Your task to perform on an android device: turn smart compose on in the gmail app Image 0: 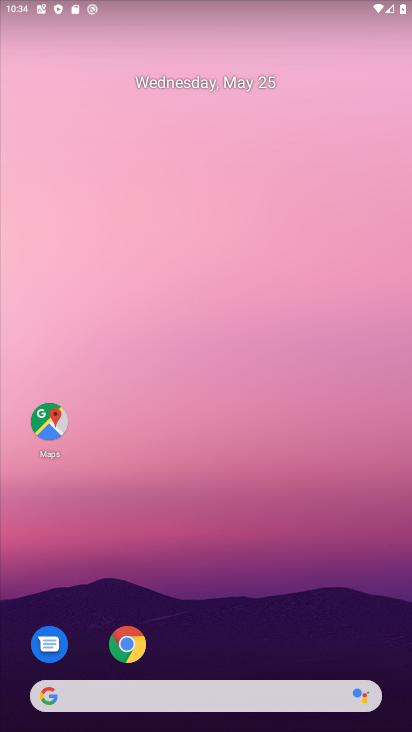
Step 0: drag from (218, 559) to (112, 28)
Your task to perform on an android device: turn smart compose on in the gmail app Image 1: 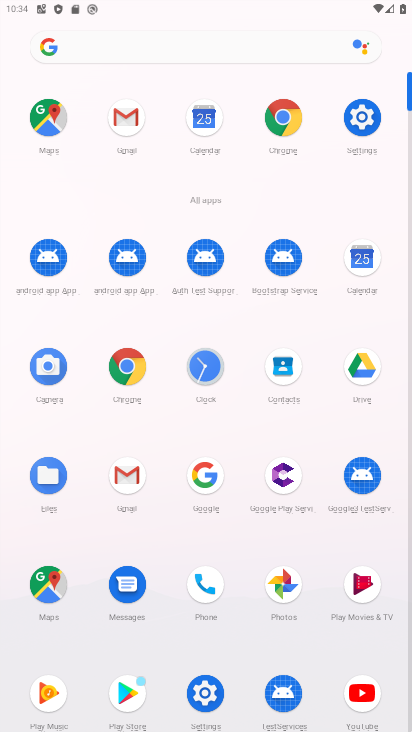
Step 1: click (129, 120)
Your task to perform on an android device: turn smart compose on in the gmail app Image 2: 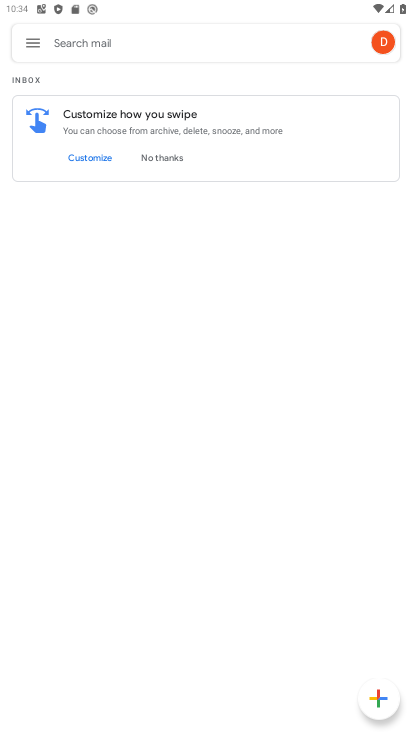
Step 2: click (34, 45)
Your task to perform on an android device: turn smart compose on in the gmail app Image 3: 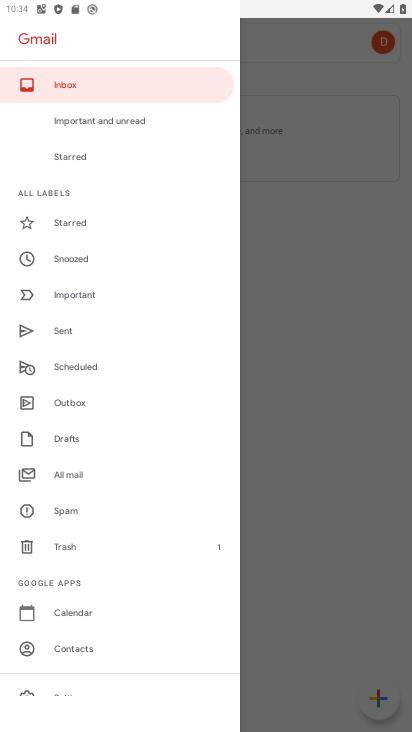
Step 3: drag from (91, 639) to (91, 306)
Your task to perform on an android device: turn smart compose on in the gmail app Image 4: 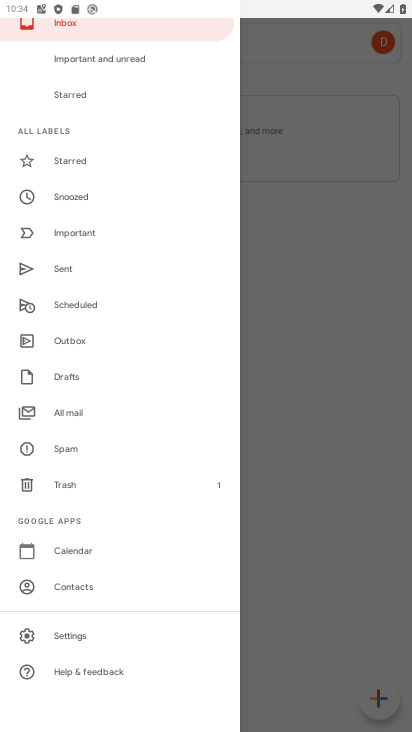
Step 4: click (67, 628)
Your task to perform on an android device: turn smart compose on in the gmail app Image 5: 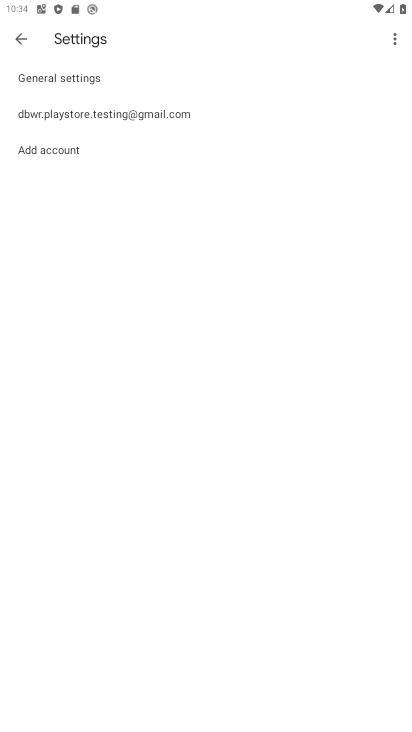
Step 5: click (63, 112)
Your task to perform on an android device: turn smart compose on in the gmail app Image 6: 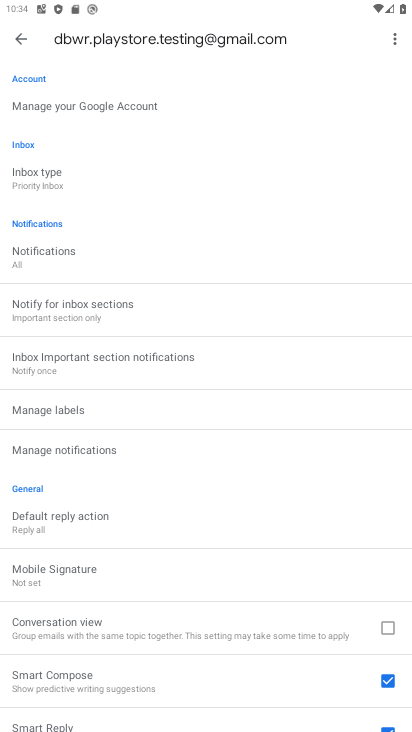
Step 6: task complete